Your task to perform on an android device: Open network settings Image 0: 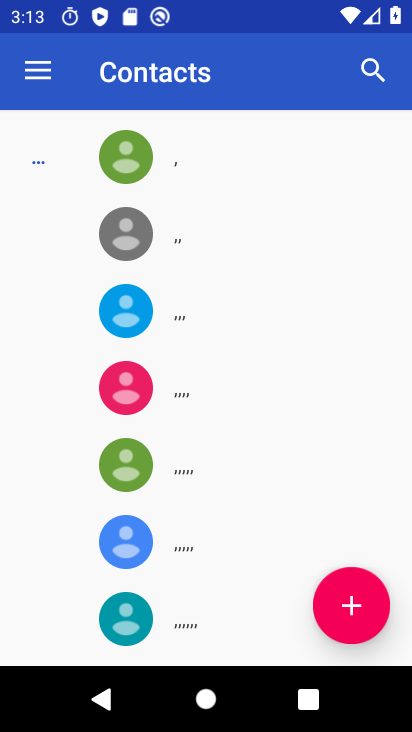
Step 0: press home button
Your task to perform on an android device: Open network settings Image 1: 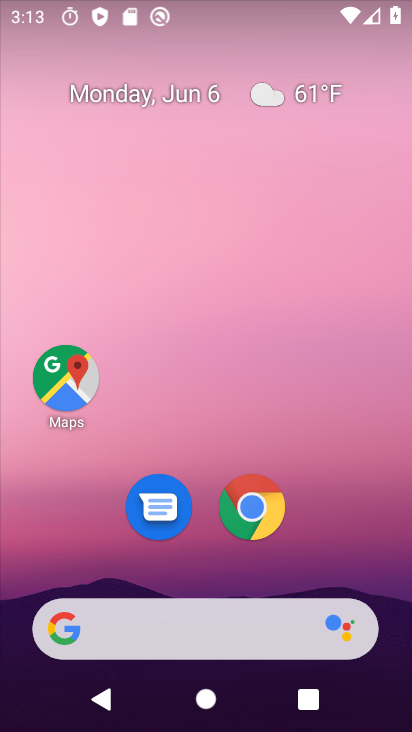
Step 1: drag from (199, 569) to (205, 139)
Your task to perform on an android device: Open network settings Image 2: 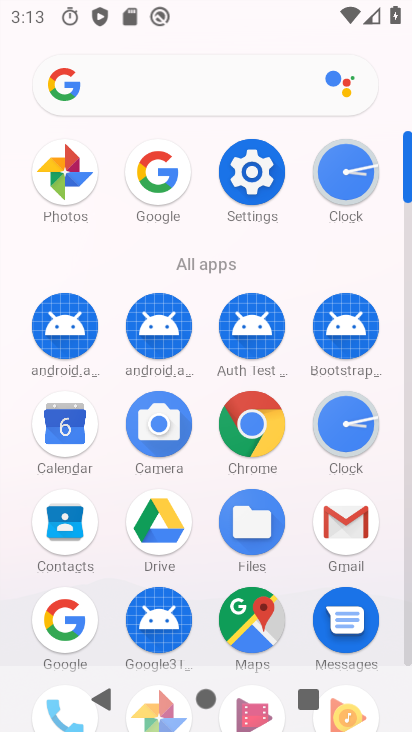
Step 2: click (249, 170)
Your task to perform on an android device: Open network settings Image 3: 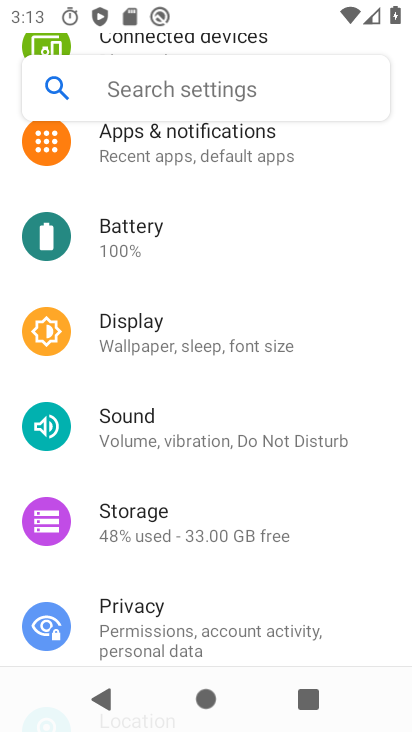
Step 3: drag from (231, 201) to (248, 449)
Your task to perform on an android device: Open network settings Image 4: 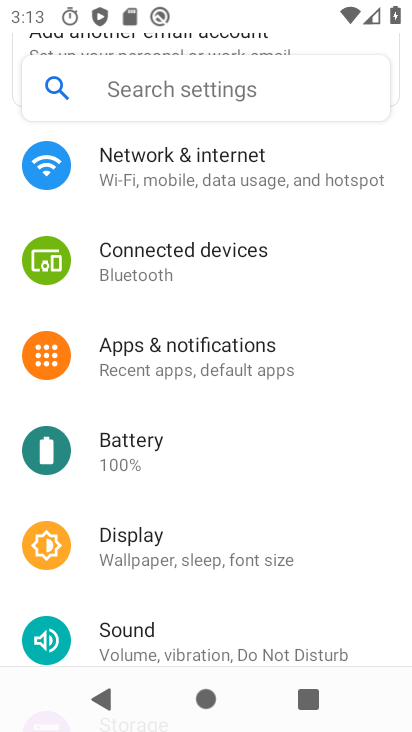
Step 4: click (207, 186)
Your task to perform on an android device: Open network settings Image 5: 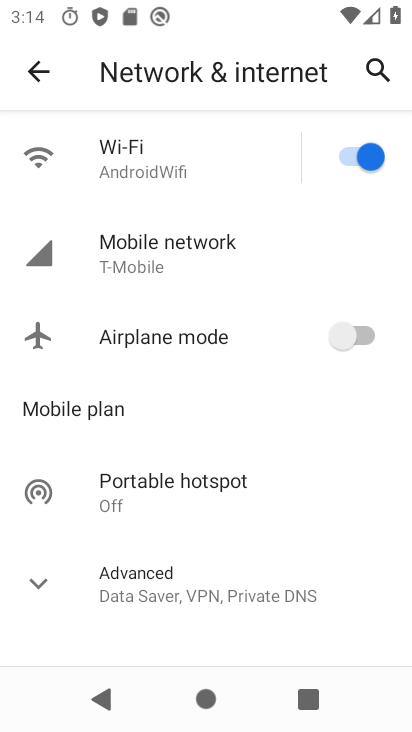
Step 5: click (164, 258)
Your task to perform on an android device: Open network settings Image 6: 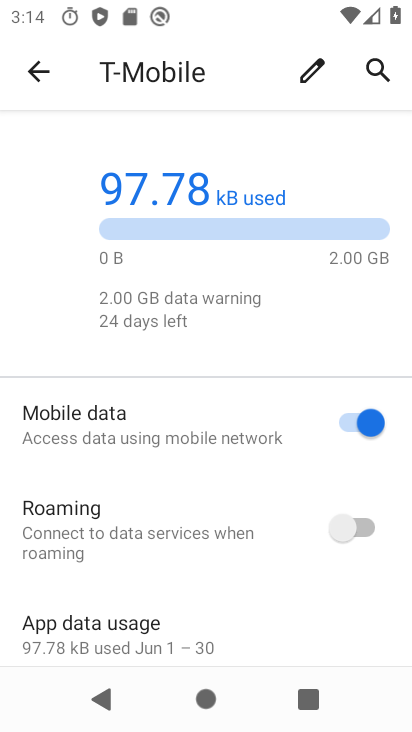
Step 6: task complete